Your task to perform on an android device: find which apps use the phone's location Image 0: 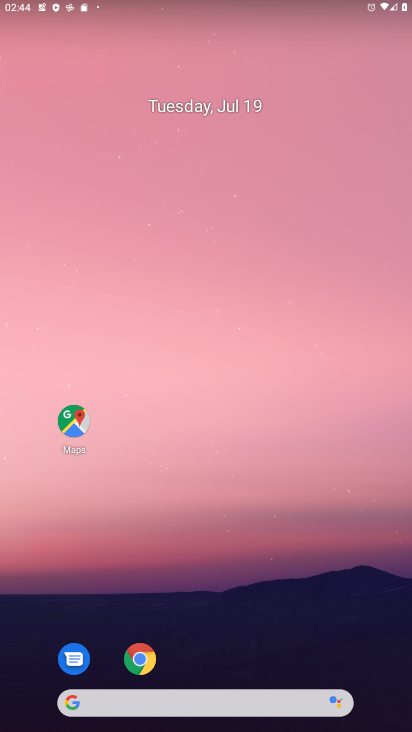
Step 0: press home button
Your task to perform on an android device: find which apps use the phone's location Image 1: 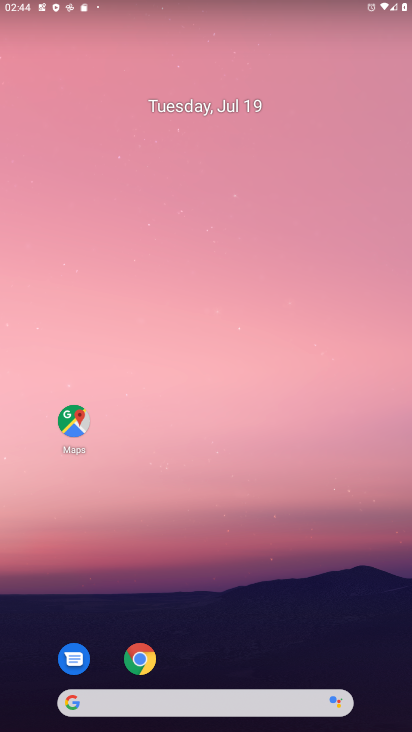
Step 1: drag from (241, 677) to (239, 204)
Your task to perform on an android device: find which apps use the phone's location Image 2: 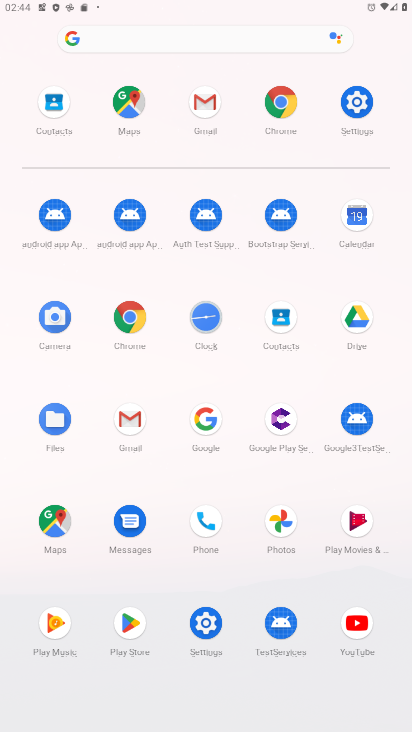
Step 2: click (198, 545)
Your task to perform on an android device: find which apps use the phone's location Image 3: 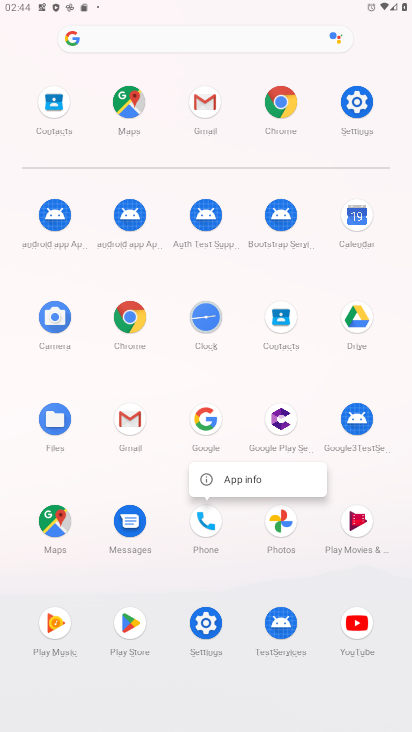
Step 3: click (243, 472)
Your task to perform on an android device: find which apps use the phone's location Image 4: 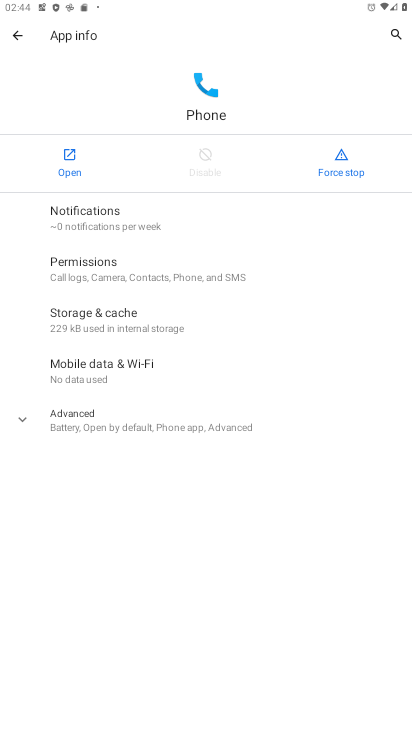
Step 4: click (82, 264)
Your task to perform on an android device: find which apps use the phone's location Image 5: 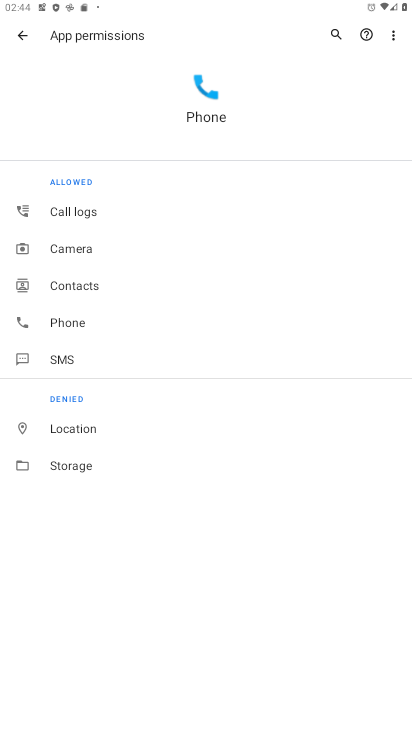
Step 5: click (84, 433)
Your task to perform on an android device: find which apps use the phone's location Image 6: 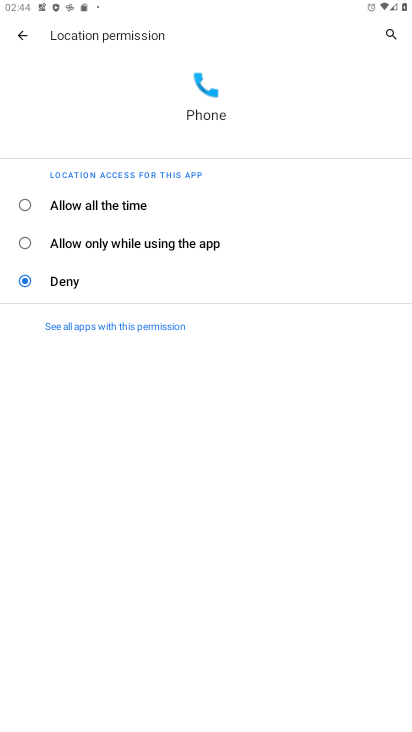
Step 6: click (71, 332)
Your task to perform on an android device: find which apps use the phone's location Image 7: 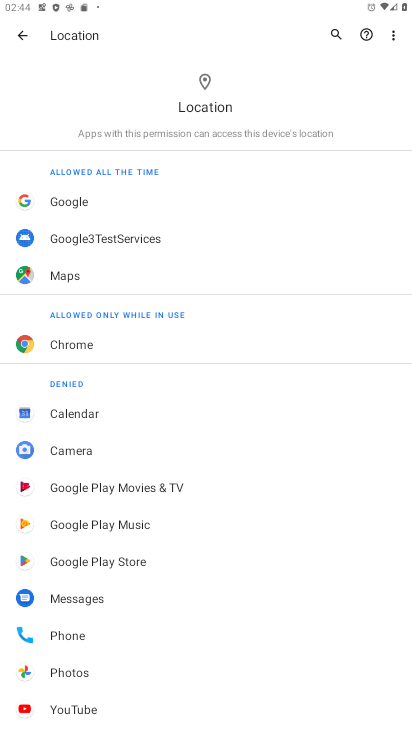
Step 7: task complete